Your task to perform on an android device: Search for Italian restaurants on Maps Image 0: 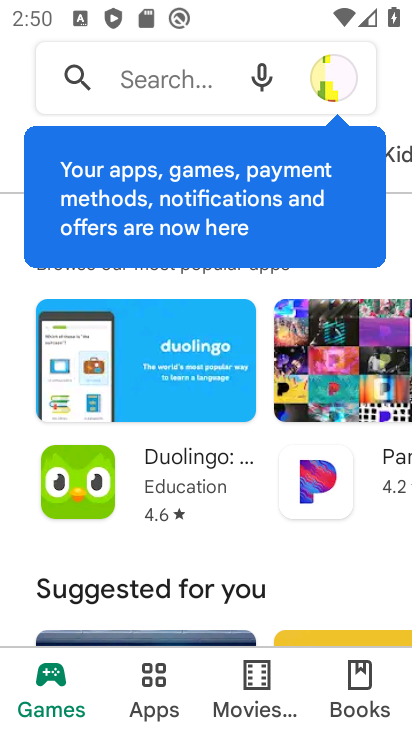
Step 0: press home button
Your task to perform on an android device: Search for Italian restaurants on Maps Image 1: 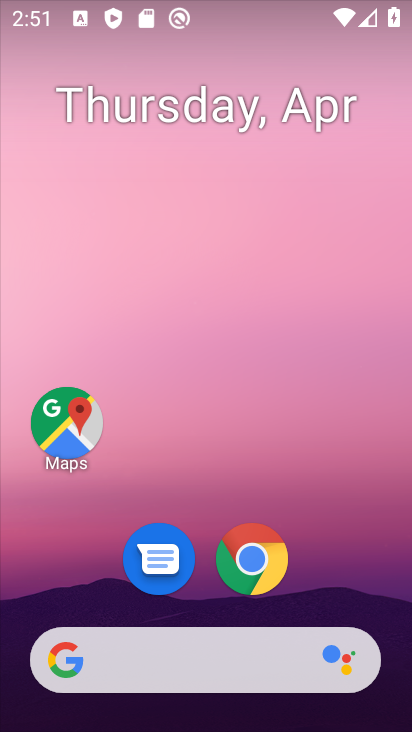
Step 1: click (80, 429)
Your task to perform on an android device: Search for Italian restaurants on Maps Image 2: 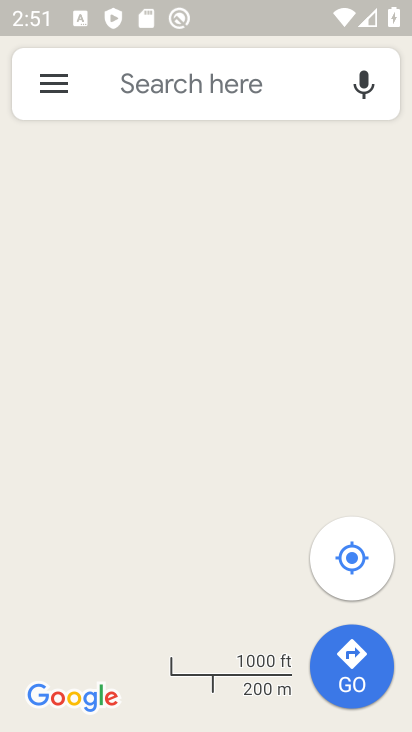
Step 2: click (189, 94)
Your task to perform on an android device: Search for Italian restaurants on Maps Image 3: 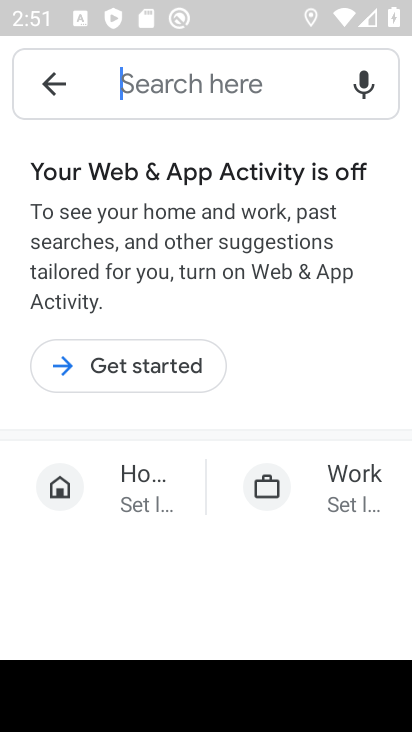
Step 3: type "italian restaurants"
Your task to perform on an android device: Search for Italian restaurants on Maps Image 4: 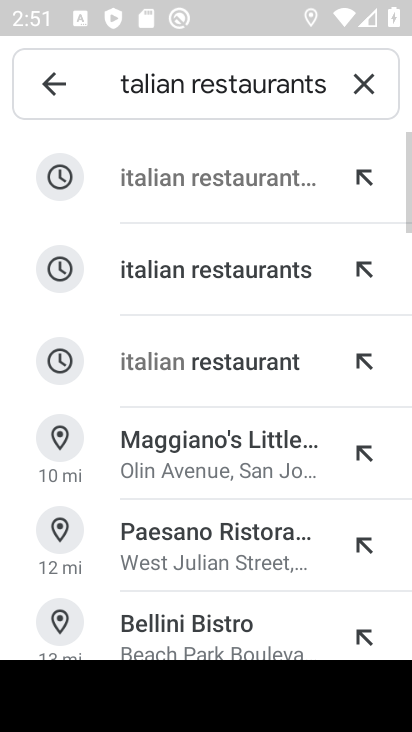
Step 4: task complete